Your task to perform on an android device: Clear all items from cart on target.com. Add macbook air to the cart on target.com Image 0: 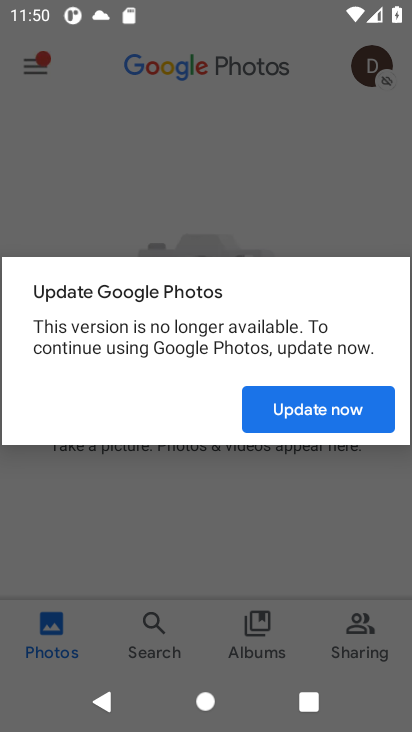
Step 0: press home button
Your task to perform on an android device: Clear all items from cart on target.com. Add macbook air to the cart on target.com Image 1: 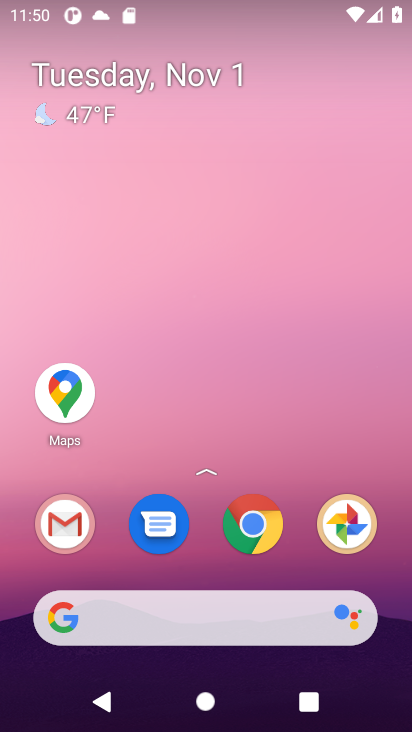
Step 1: click (95, 625)
Your task to perform on an android device: Clear all items from cart on target.com. Add macbook air to the cart on target.com Image 2: 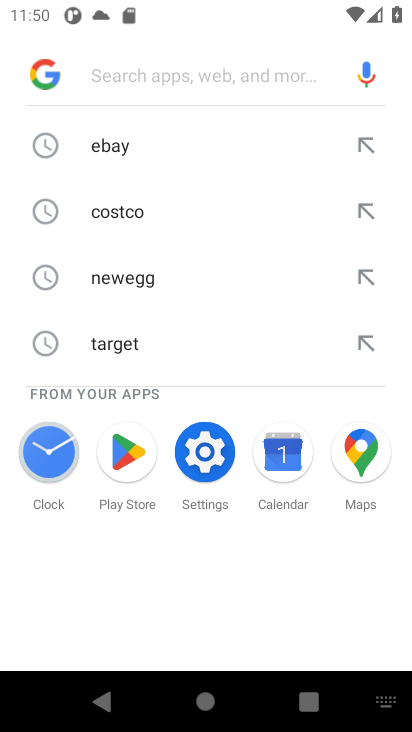
Step 2: type "target.com"
Your task to perform on an android device: Clear all items from cart on target.com. Add macbook air to the cart on target.com Image 3: 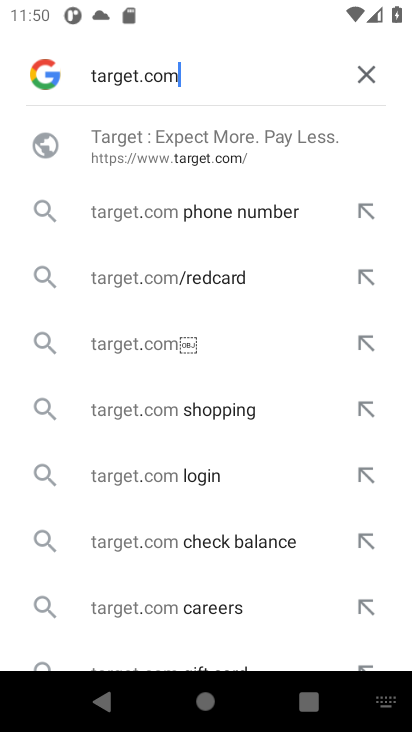
Step 3: press enter
Your task to perform on an android device: Clear all items from cart on target.com. Add macbook air to the cart on target.com Image 4: 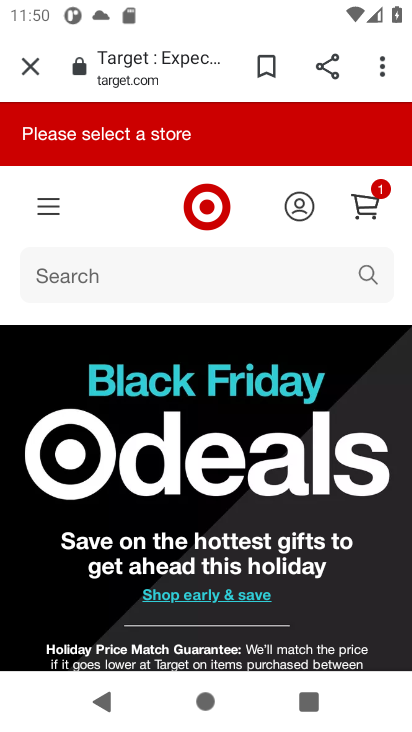
Step 4: click (368, 197)
Your task to perform on an android device: Clear all items from cart on target.com. Add macbook air to the cart on target.com Image 5: 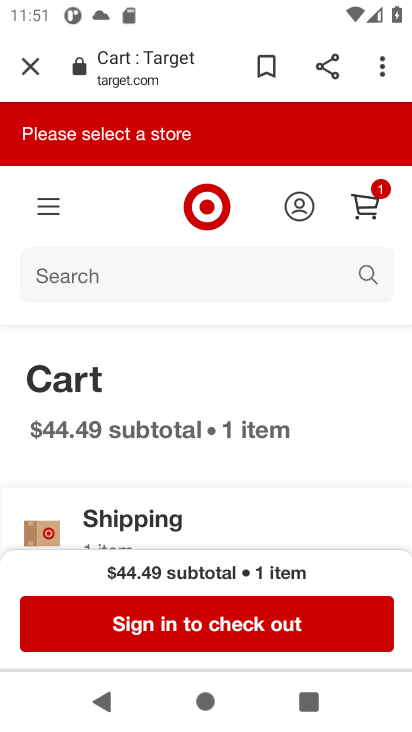
Step 5: drag from (245, 498) to (243, 284)
Your task to perform on an android device: Clear all items from cart on target.com. Add macbook air to the cart on target.com Image 6: 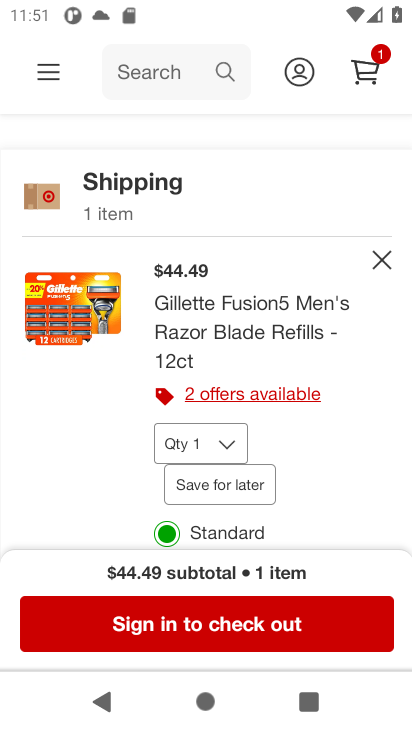
Step 6: drag from (317, 471) to (319, 301)
Your task to perform on an android device: Clear all items from cart on target.com. Add macbook air to the cart on target.com Image 7: 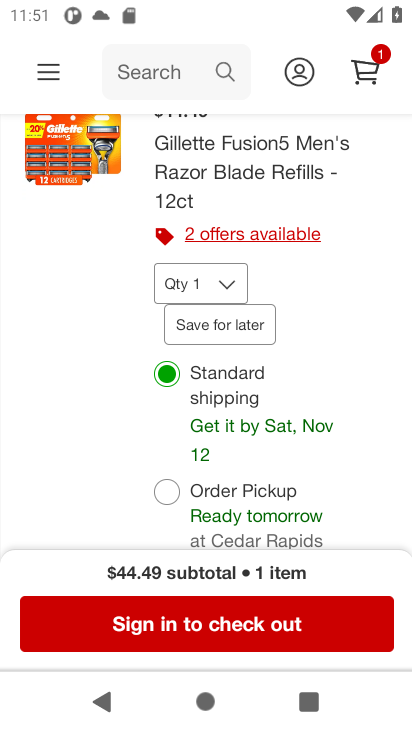
Step 7: drag from (353, 176) to (338, 365)
Your task to perform on an android device: Clear all items from cart on target.com. Add macbook air to the cart on target.com Image 8: 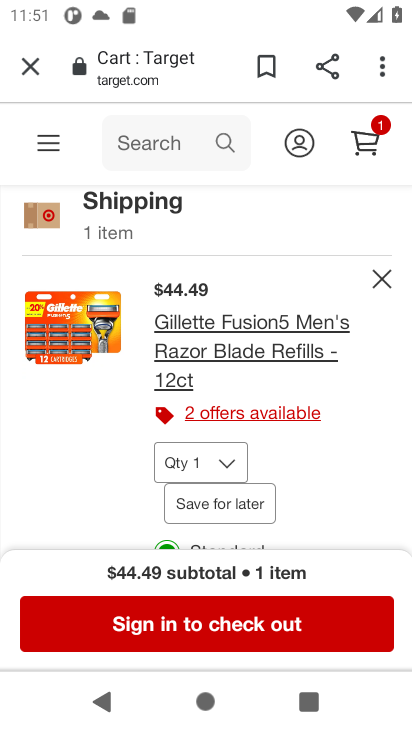
Step 8: click (378, 278)
Your task to perform on an android device: Clear all items from cart on target.com. Add macbook air to the cart on target.com Image 9: 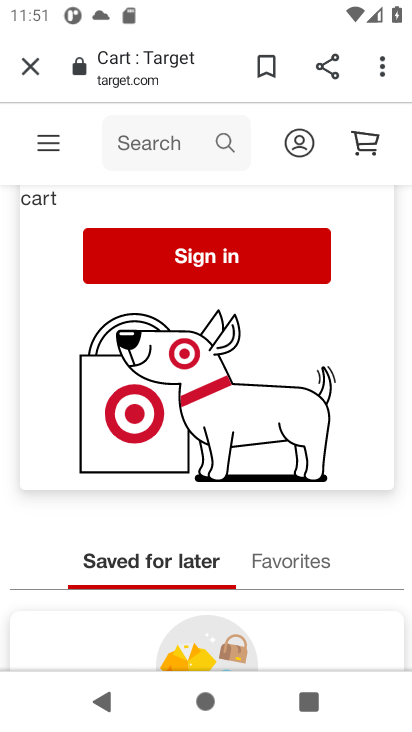
Step 9: click (152, 147)
Your task to perform on an android device: Clear all items from cart on target.com. Add macbook air to the cart on target.com Image 10: 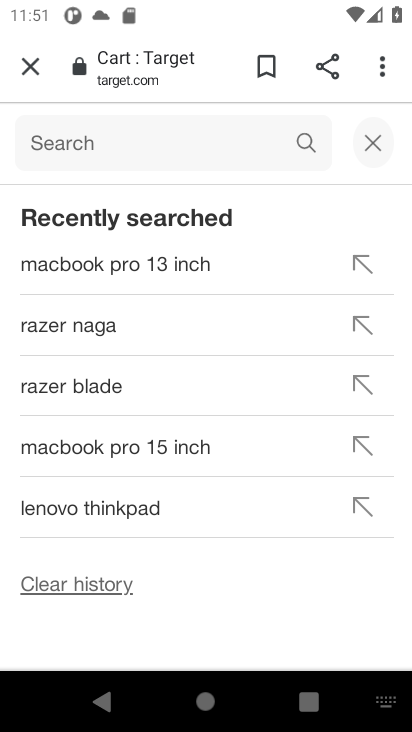
Step 10: type " macbook air"
Your task to perform on an android device: Clear all items from cart on target.com. Add macbook air to the cart on target.com Image 11: 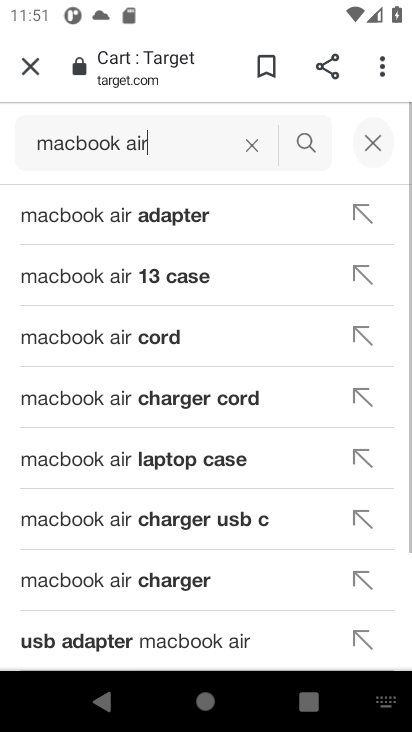
Step 11: press enter
Your task to perform on an android device: Clear all items from cart on target.com. Add macbook air to the cart on target.com Image 12: 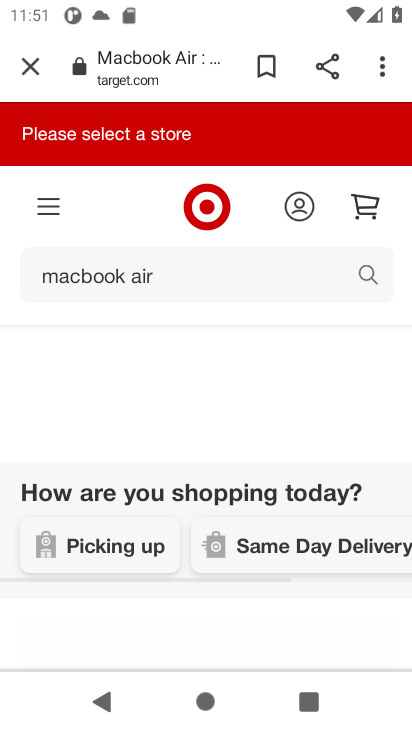
Step 12: task complete